Your task to perform on an android device: set the timer Image 0: 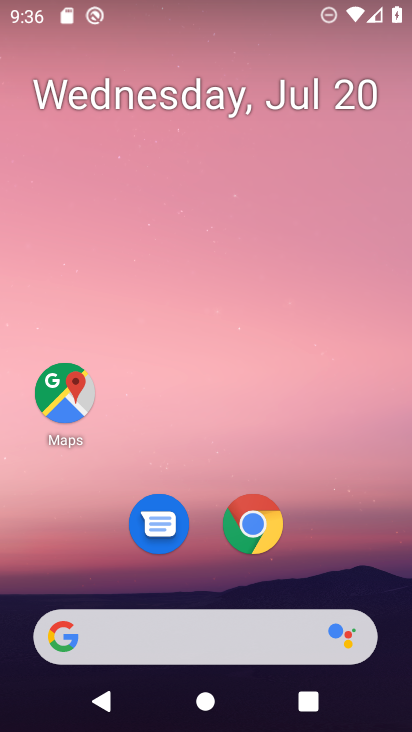
Step 0: press home button
Your task to perform on an android device: set the timer Image 1: 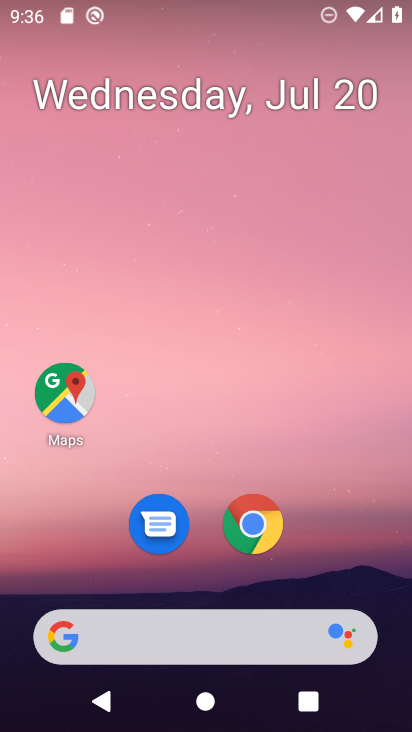
Step 1: drag from (202, 634) to (332, 176)
Your task to perform on an android device: set the timer Image 2: 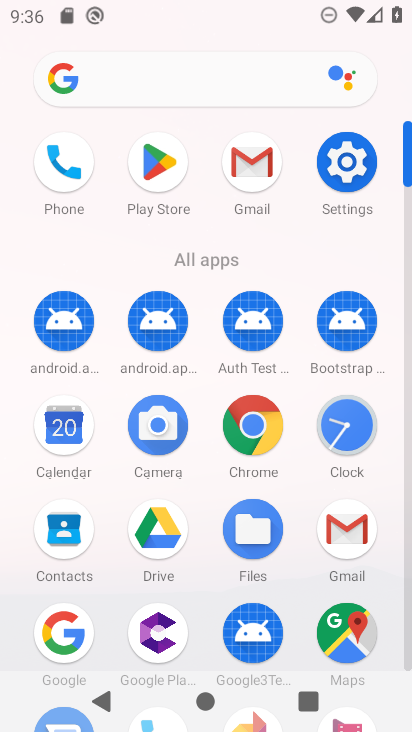
Step 2: click (344, 428)
Your task to perform on an android device: set the timer Image 3: 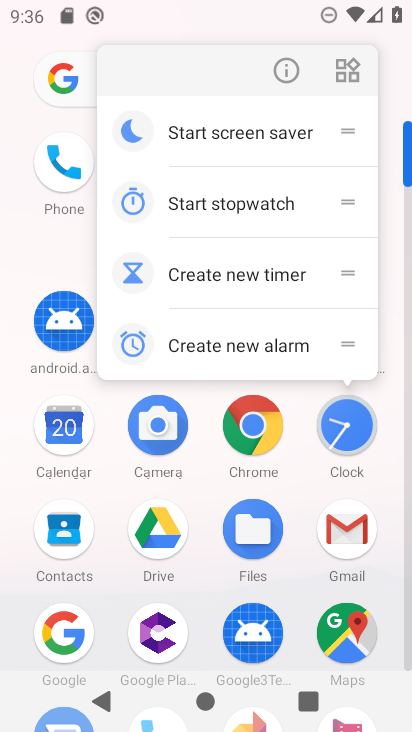
Step 3: click (344, 429)
Your task to perform on an android device: set the timer Image 4: 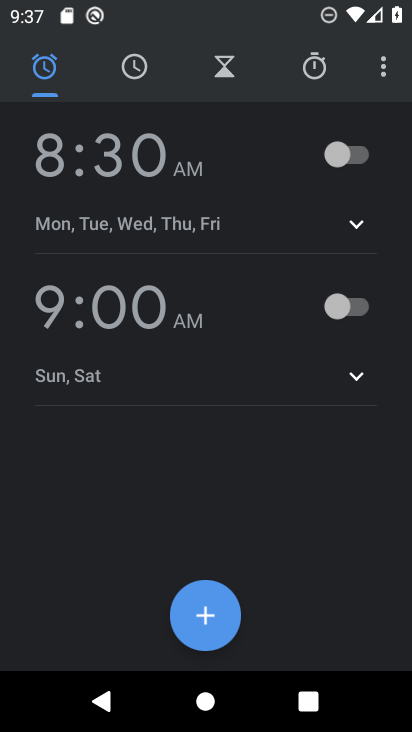
Step 4: click (227, 67)
Your task to perform on an android device: set the timer Image 5: 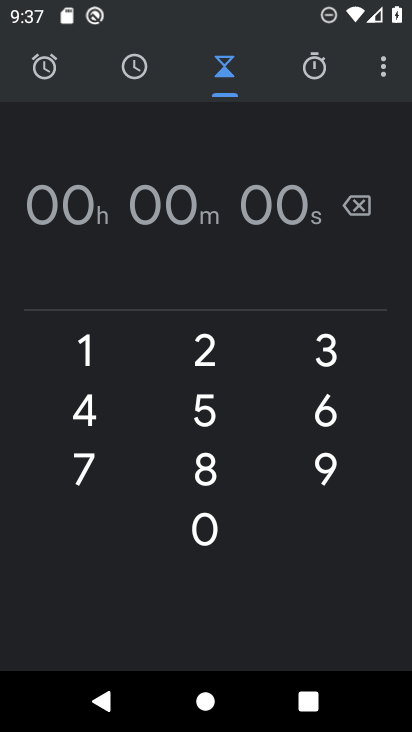
Step 5: click (95, 350)
Your task to perform on an android device: set the timer Image 6: 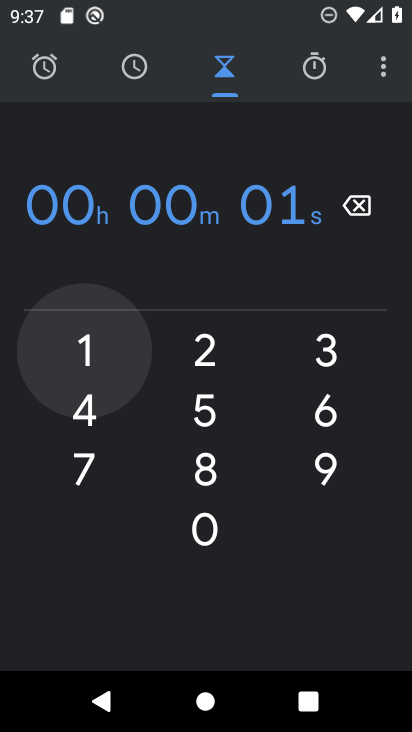
Step 6: click (204, 470)
Your task to perform on an android device: set the timer Image 7: 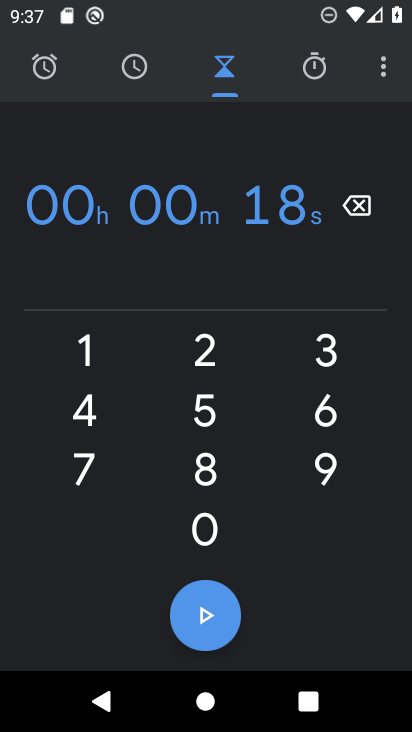
Step 7: click (217, 607)
Your task to perform on an android device: set the timer Image 8: 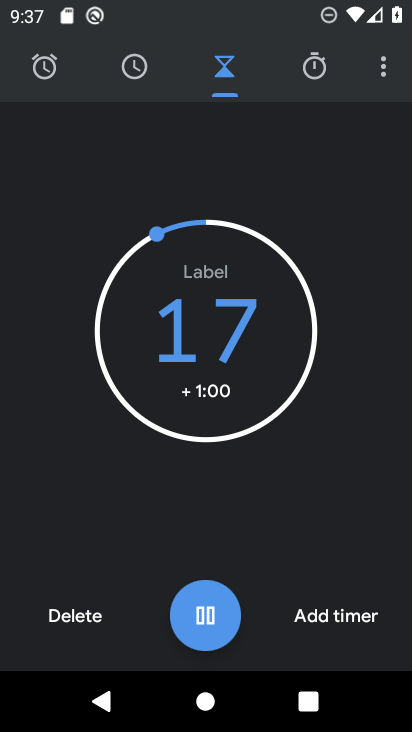
Step 8: click (207, 613)
Your task to perform on an android device: set the timer Image 9: 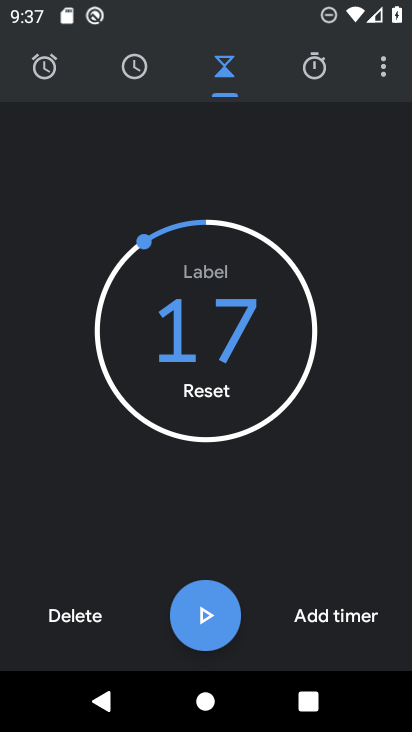
Step 9: task complete